Your task to perform on an android device: open sync settings in chrome Image 0: 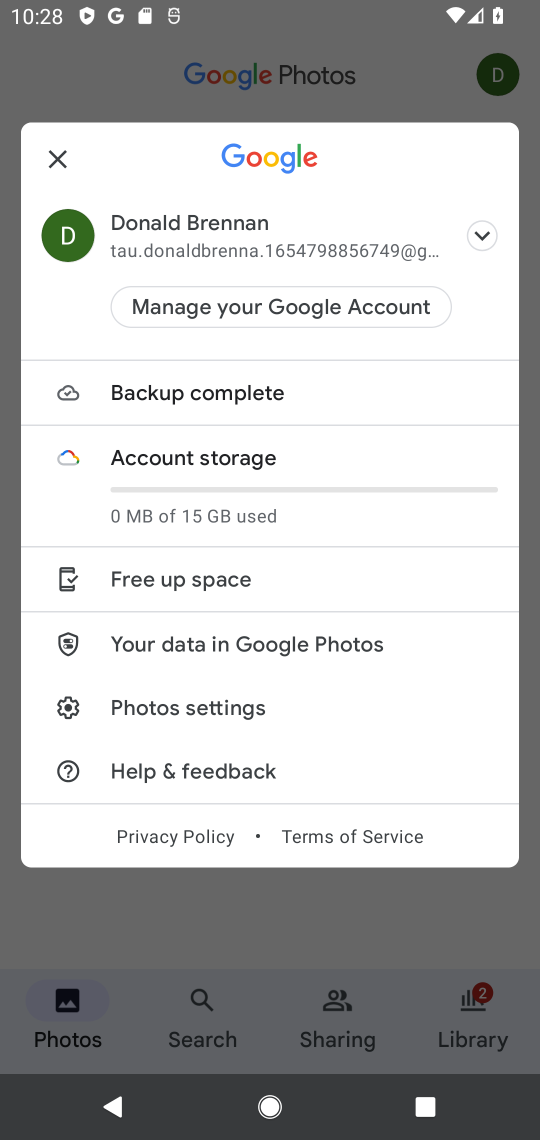
Step 0: press home button
Your task to perform on an android device: open sync settings in chrome Image 1: 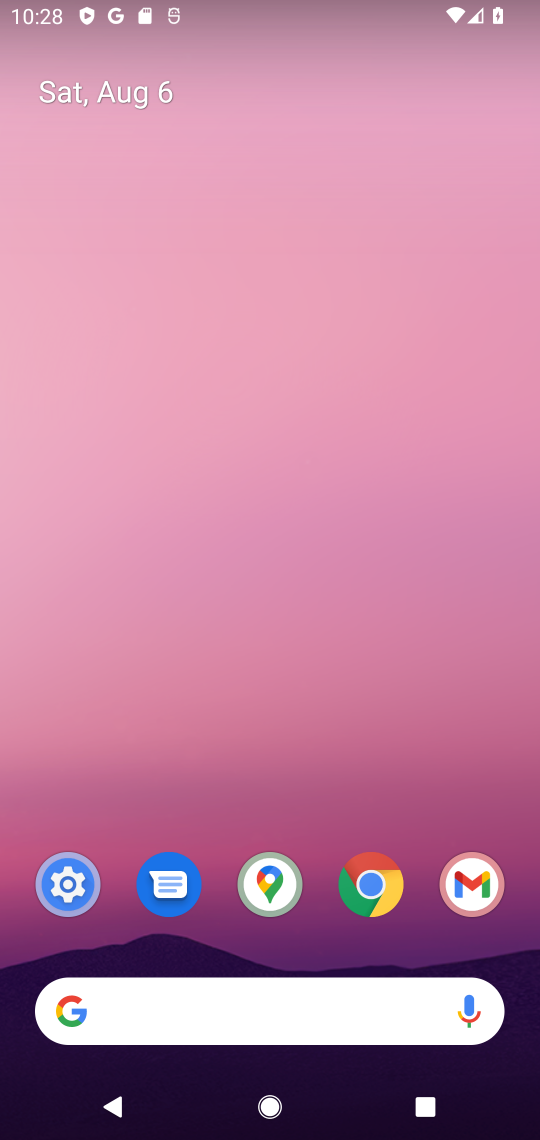
Step 1: click (373, 889)
Your task to perform on an android device: open sync settings in chrome Image 2: 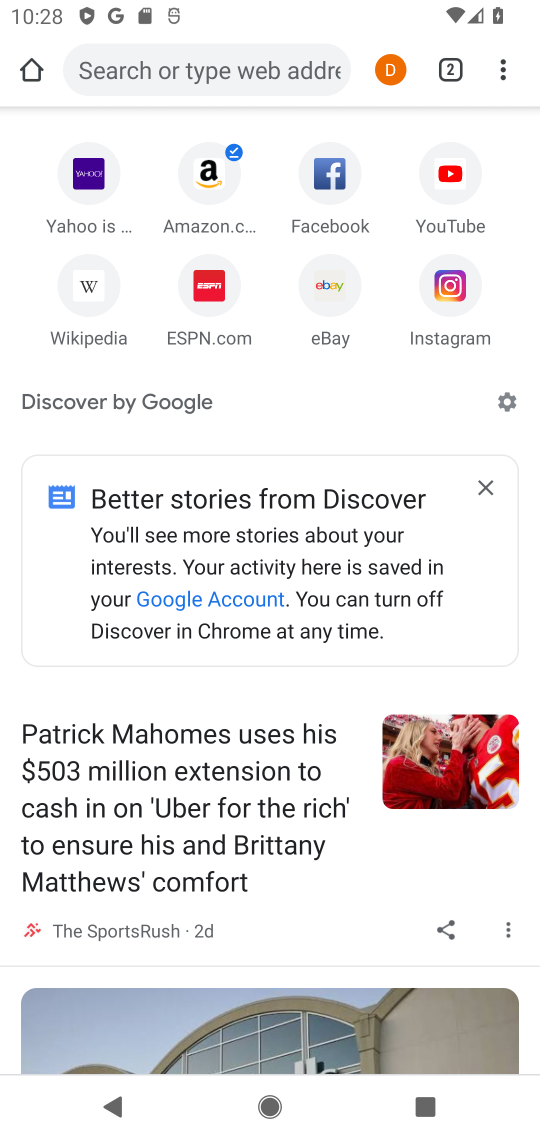
Step 2: click (498, 74)
Your task to perform on an android device: open sync settings in chrome Image 3: 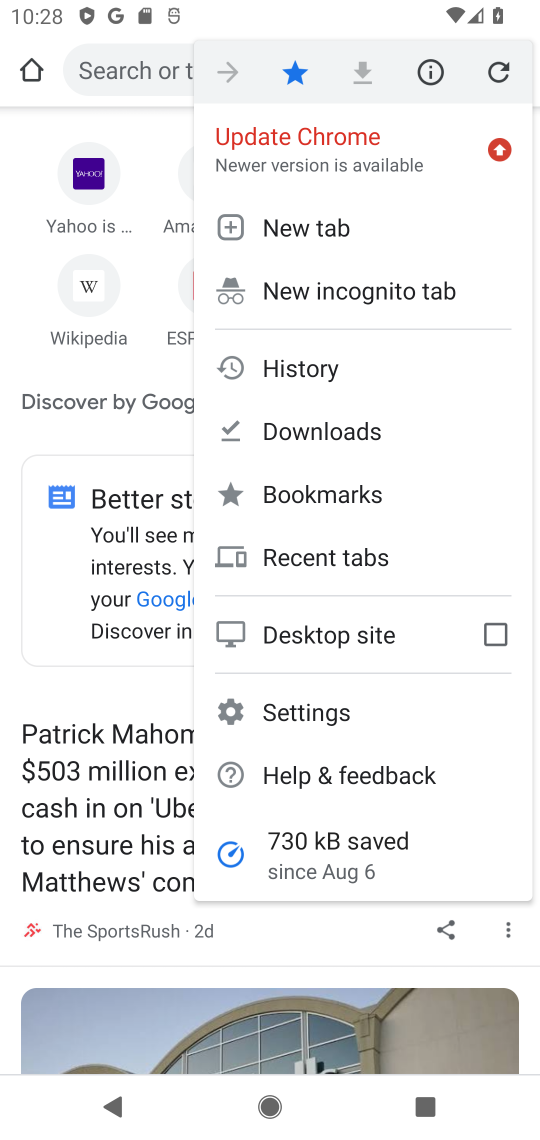
Step 3: click (300, 701)
Your task to perform on an android device: open sync settings in chrome Image 4: 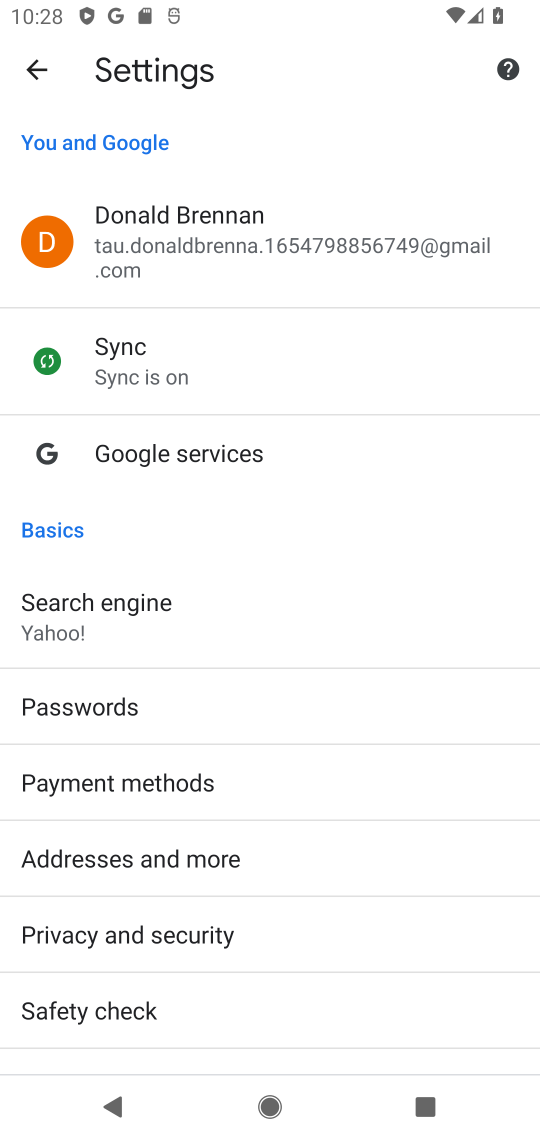
Step 4: click (135, 340)
Your task to perform on an android device: open sync settings in chrome Image 5: 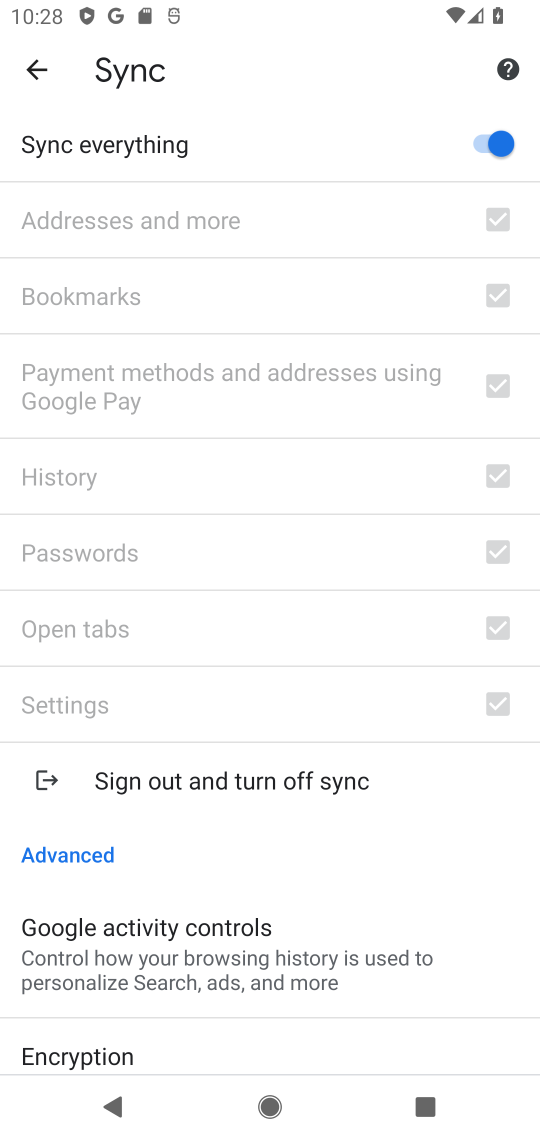
Step 5: task complete